Your task to perform on an android device: check android version Image 0: 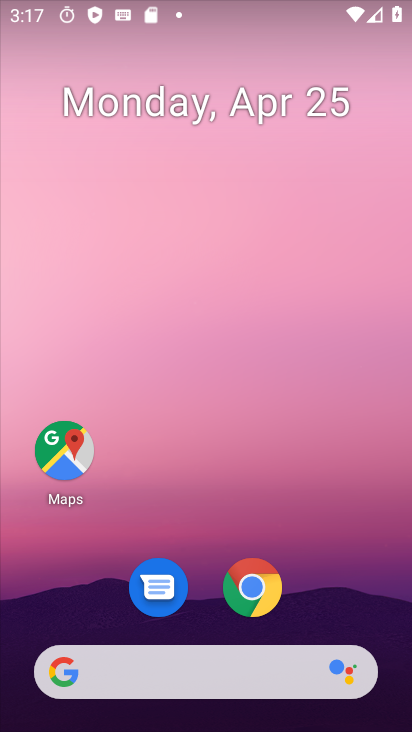
Step 0: drag from (349, 407) to (392, 87)
Your task to perform on an android device: check android version Image 1: 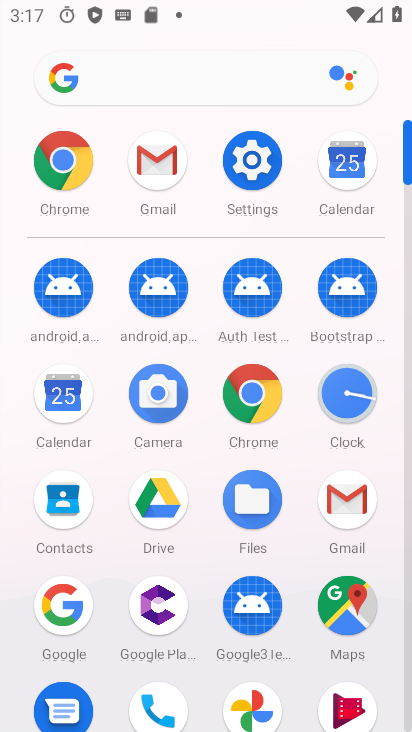
Step 1: click (243, 159)
Your task to perform on an android device: check android version Image 2: 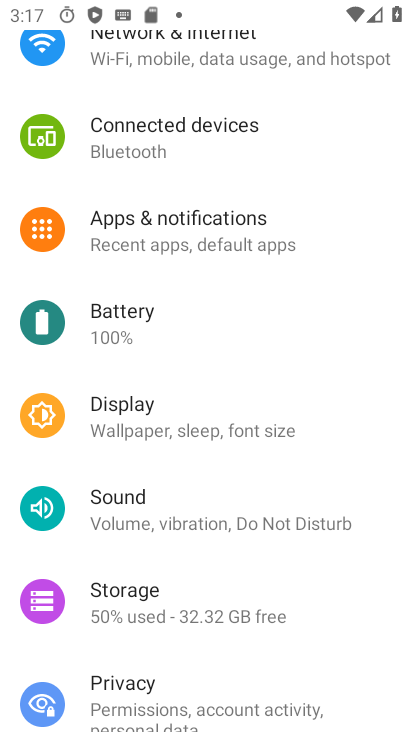
Step 2: drag from (215, 588) to (272, 82)
Your task to perform on an android device: check android version Image 3: 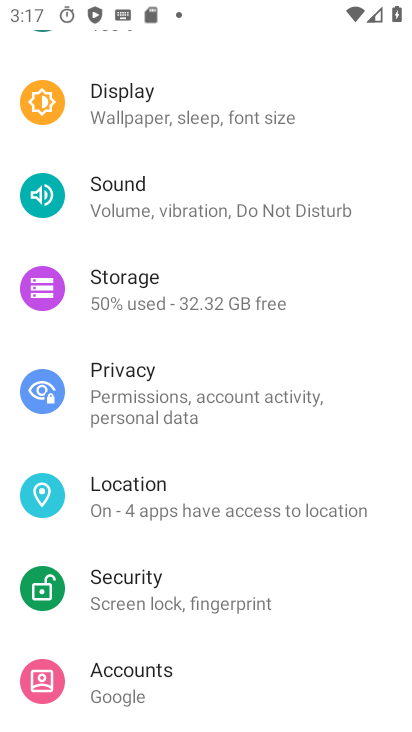
Step 3: drag from (208, 466) to (271, 100)
Your task to perform on an android device: check android version Image 4: 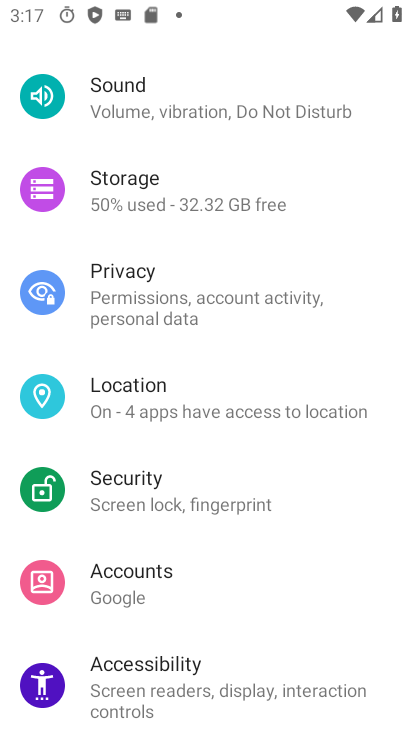
Step 4: drag from (198, 649) to (272, 133)
Your task to perform on an android device: check android version Image 5: 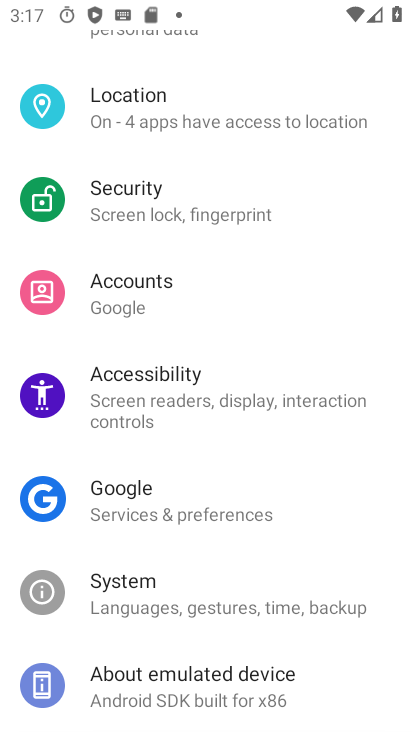
Step 5: click (146, 689)
Your task to perform on an android device: check android version Image 6: 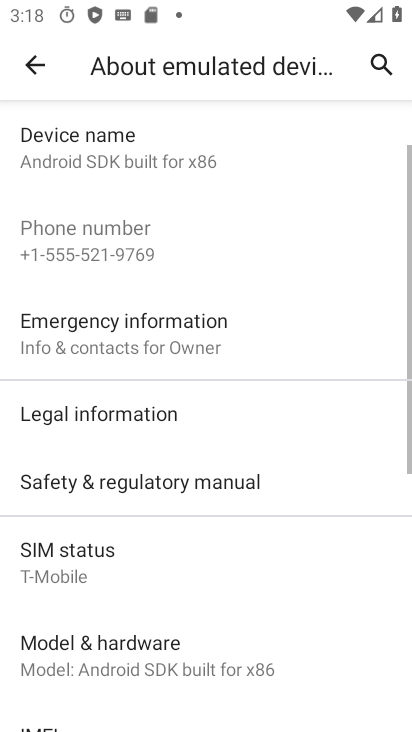
Step 6: task complete